Your task to perform on an android device: Search for sushi restaurants on Maps Image 0: 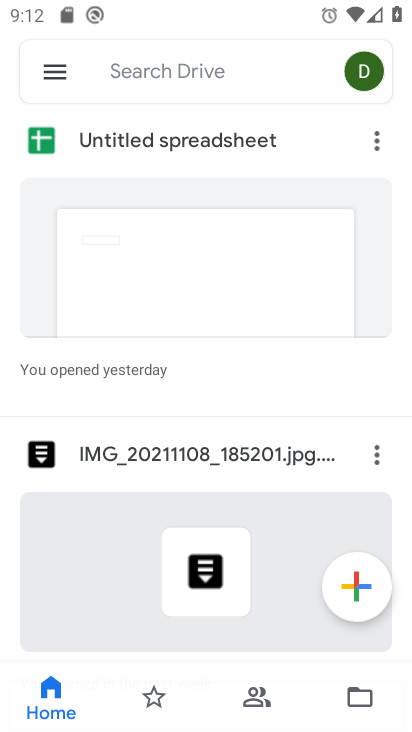
Step 0: press home button
Your task to perform on an android device: Search for sushi restaurants on Maps Image 1: 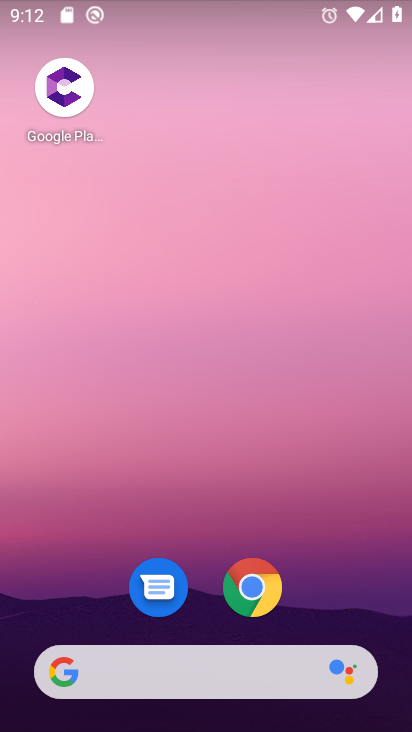
Step 1: drag from (205, 621) to (249, 43)
Your task to perform on an android device: Search for sushi restaurants on Maps Image 2: 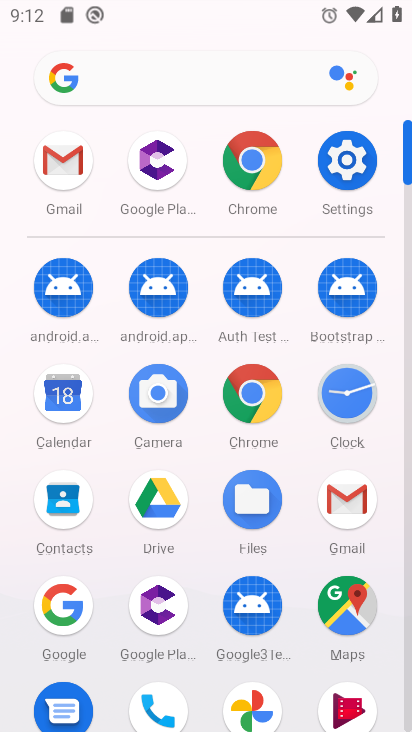
Step 2: click (359, 605)
Your task to perform on an android device: Search for sushi restaurants on Maps Image 3: 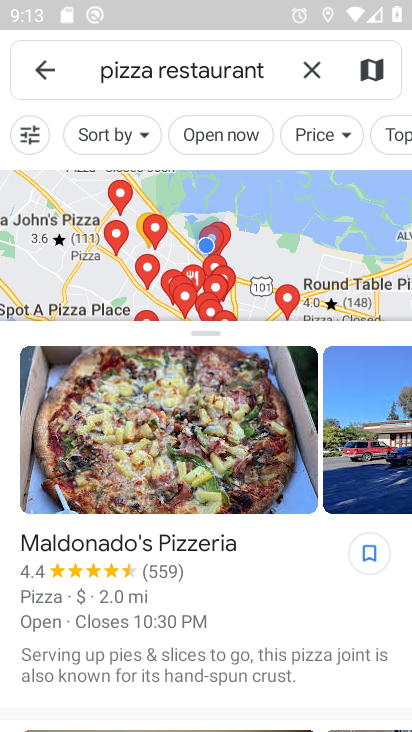
Step 3: click (122, 63)
Your task to perform on an android device: Search for sushi restaurants on Maps Image 4: 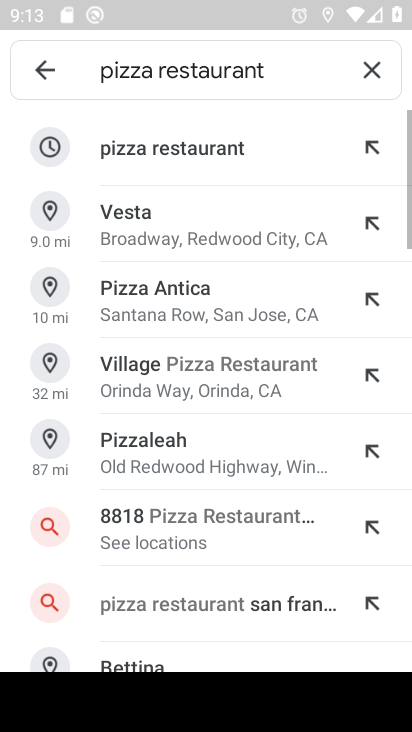
Step 4: click (128, 75)
Your task to perform on an android device: Search for sushi restaurants on Maps Image 5: 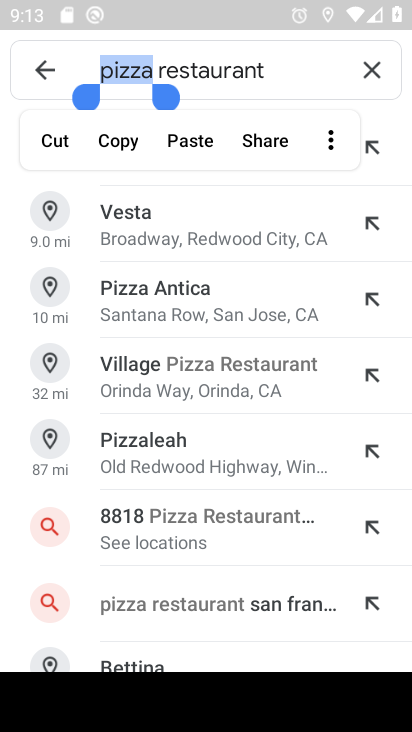
Step 5: type "sushi"
Your task to perform on an android device: Search for sushi restaurants on Maps Image 6: 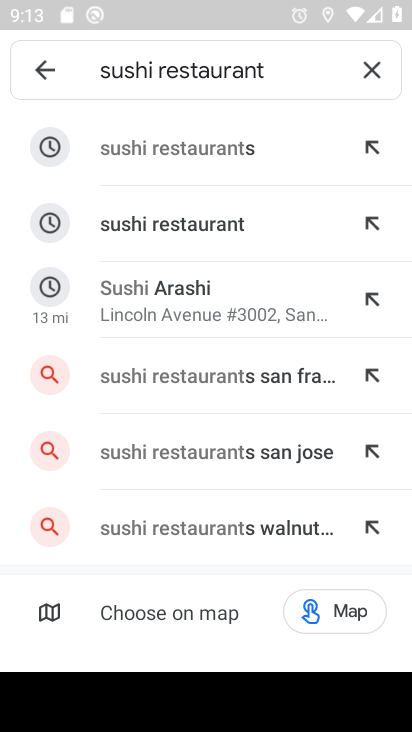
Step 6: click (117, 158)
Your task to perform on an android device: Search for sushi restaurants on Maps Image 7: 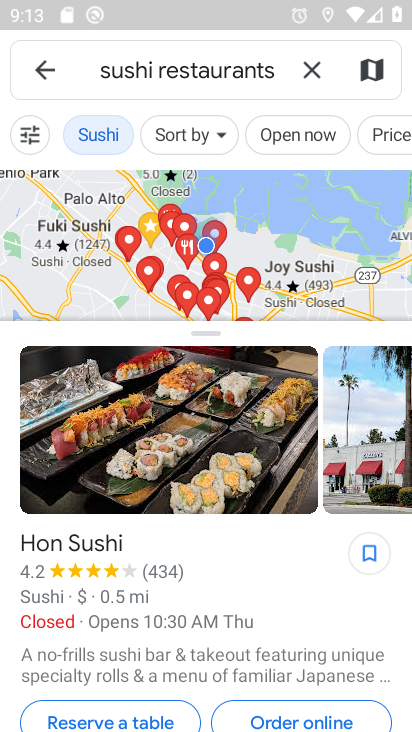
Step 7: task complete